Your task to perform on an android device: stop showing notifications on the lock screen Image 0: 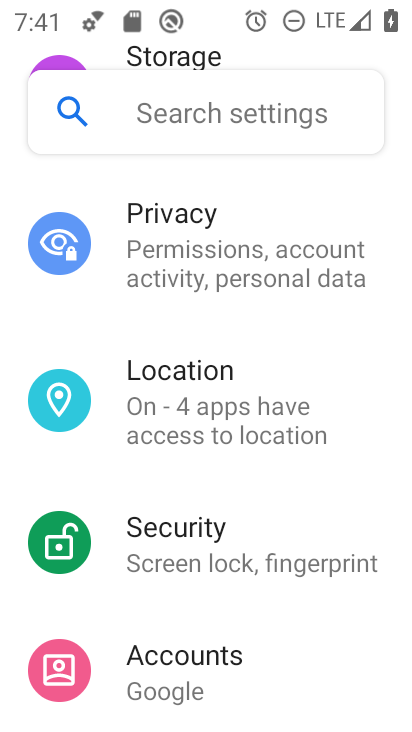
Step 0: press home button
Your task to perform on an android device: stop showing notifications on the lock screen Image 1: 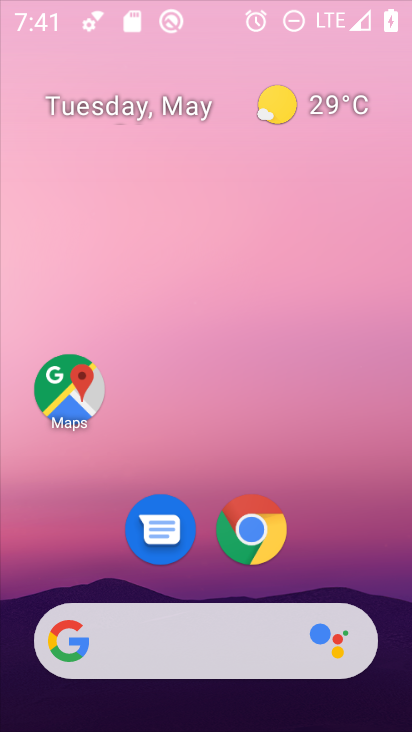
Step 1: drag from (380, 662) to (265, 48)
Your task to perform on an android device: stop showing notifications on the lock screen Image 2: 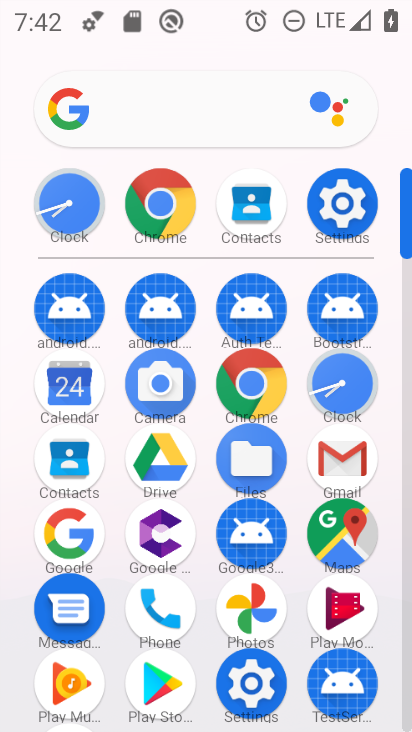
Step 2: click (245, 694)
Your task to perform on an android device: stop showing notifications on the lock screen Image 3: 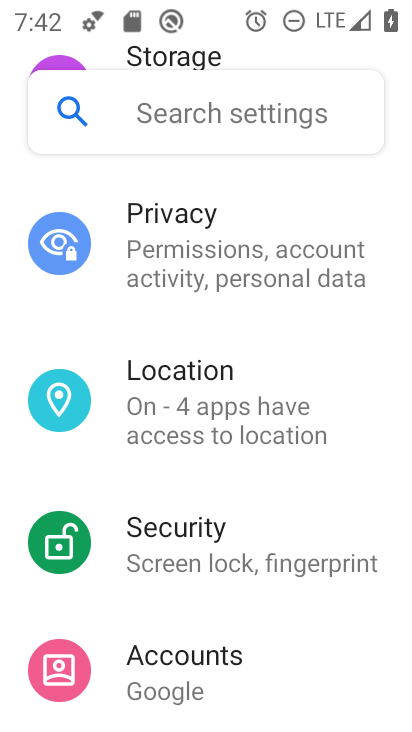
Step 3: drag from (149, 252) to (173, 715)
Your task to perform on an android device: stop showing notifications on the lock screen Image 4: 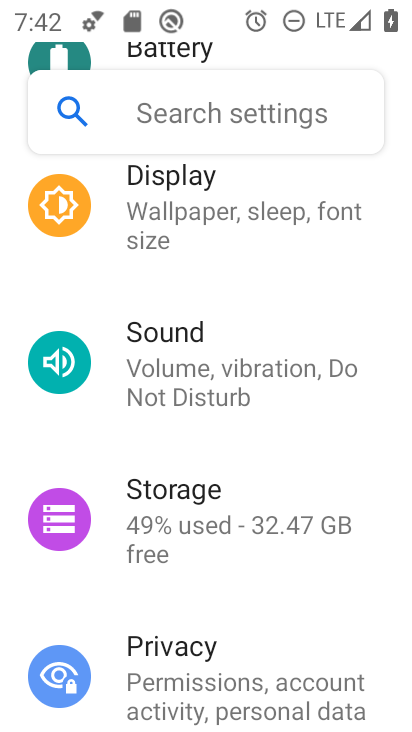
Step 4: drag from (138, 194) to (177, 602)
Your task to perform on an android device: stop showing notifications on the lock screen Image 5: 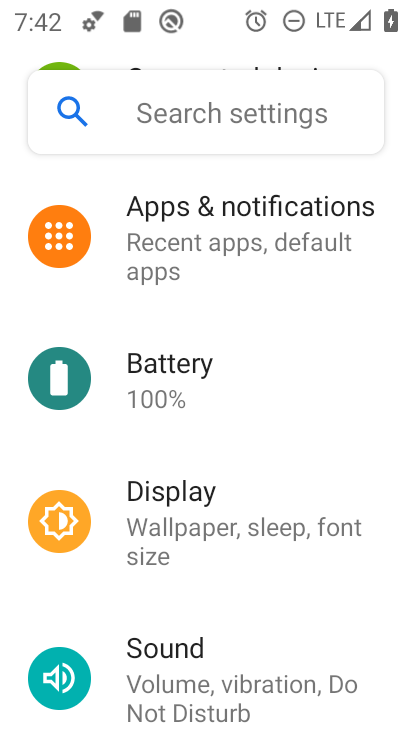
Step 5: click (210, 250)
Your task to perform on an android device: stop showing notifications on the lock screen Image 6: 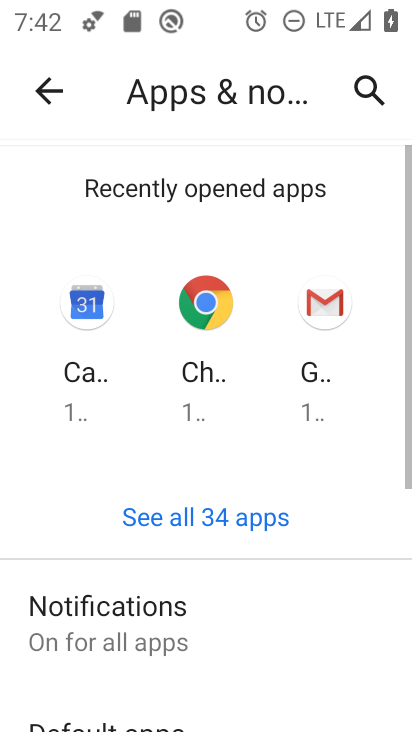
Step 6: drag from (233, 672) to (193, 259)
Your task to perform on an android device: stop showing notifications on the lock screen Image 7: 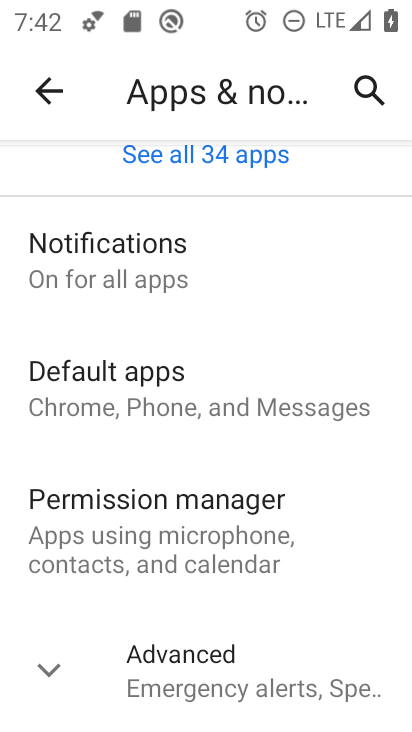
Step 7: click (137, 285)
Your task to perform on an android device: stop showing notifications on the lock screen Image 8: 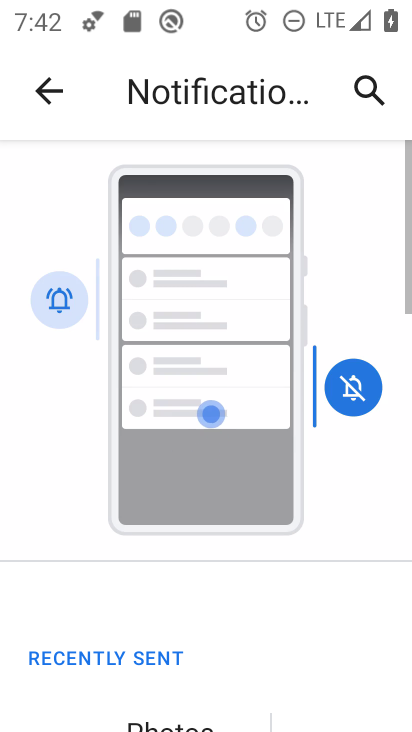
Step 8: drag from (239, 657) to (167, 6)
Your task to perform on an android device: stop showing notifications on the lock screen Image 9: 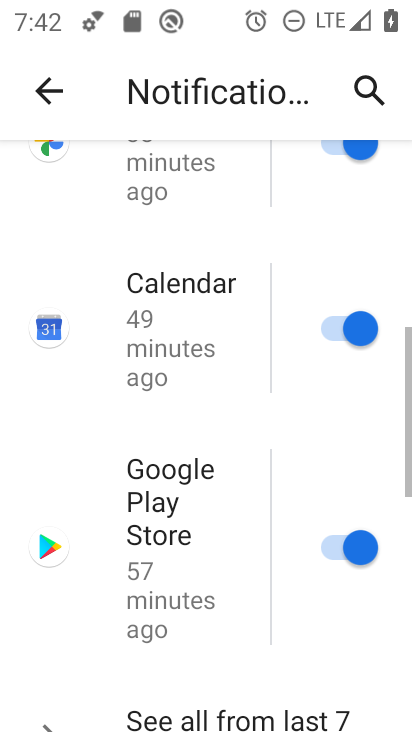
Step 9: drag from (235, 644) to (249, 221)
Your task to perform on an android device: stop showing notifications on the lock screen Image 10: 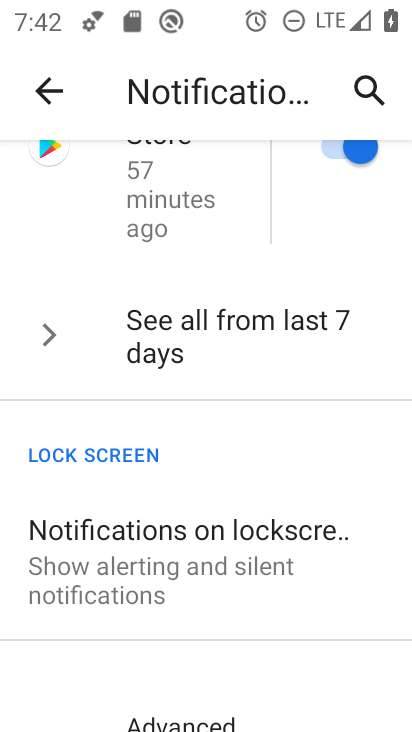
Step 10: click (203, 585)
Your task to perform on an android device: stop showing notifications on the lock screen Image 11: 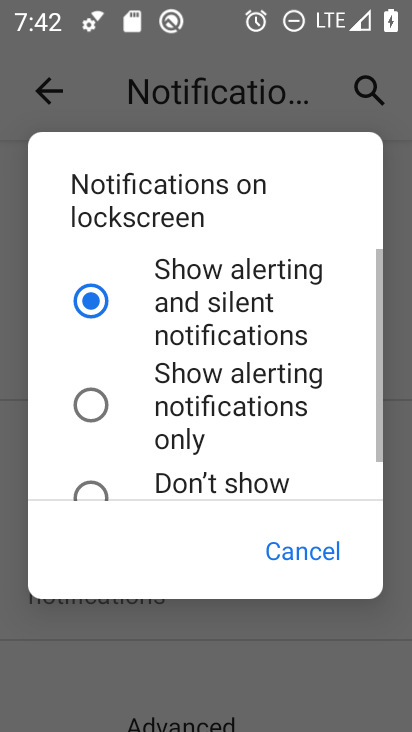
Step 11: click (113, 482)
Your task to perform on an android device: stop showing notifications on the lock screen Image 12: 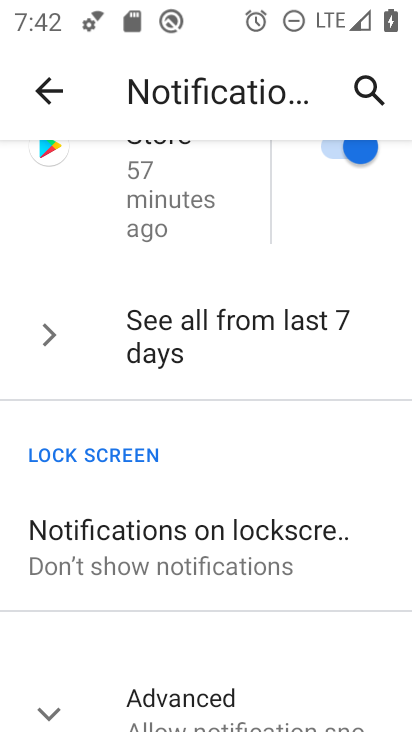
Step 12: task complete